Your task to perform on an android device: all mails in gmail Image 0: 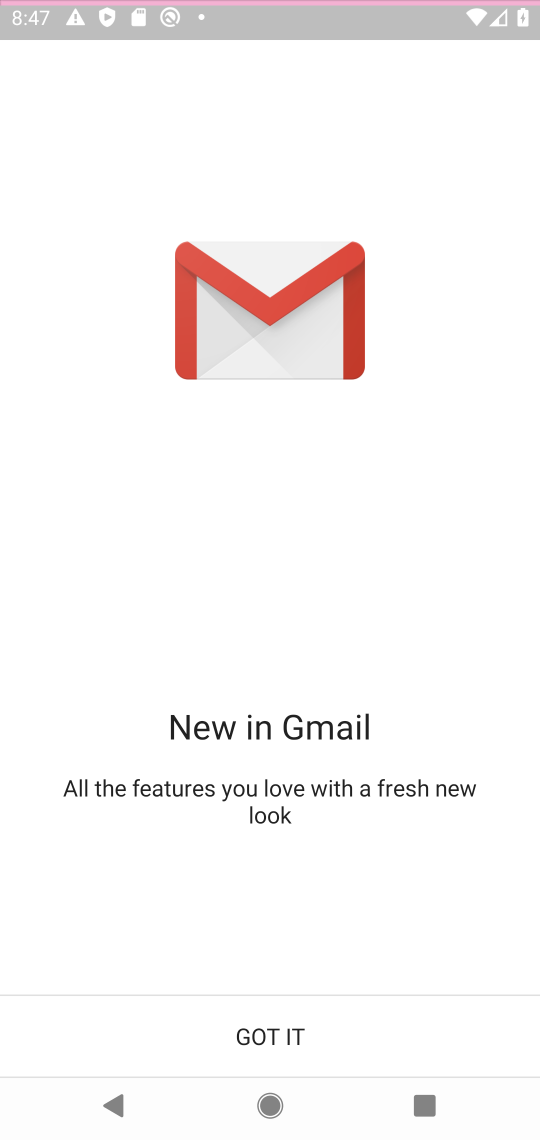
Step 0: press home button
Your task to perform on an android device: all mails in gmail Image 1: 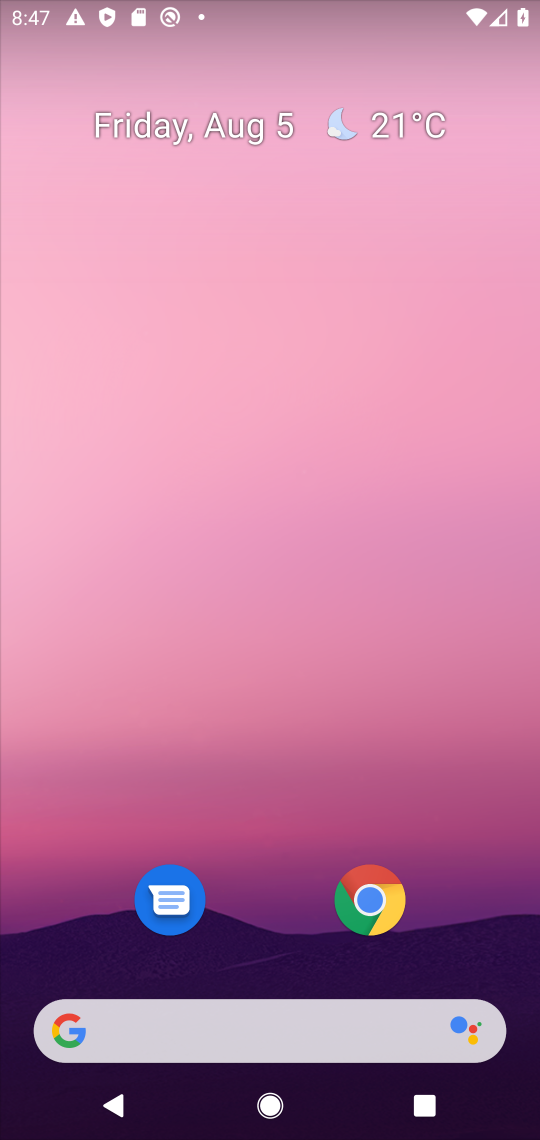
Step 1: drag from (271, 874) to (328, 0)
Your task to perform on an android device: all mails in gmail Image 2: 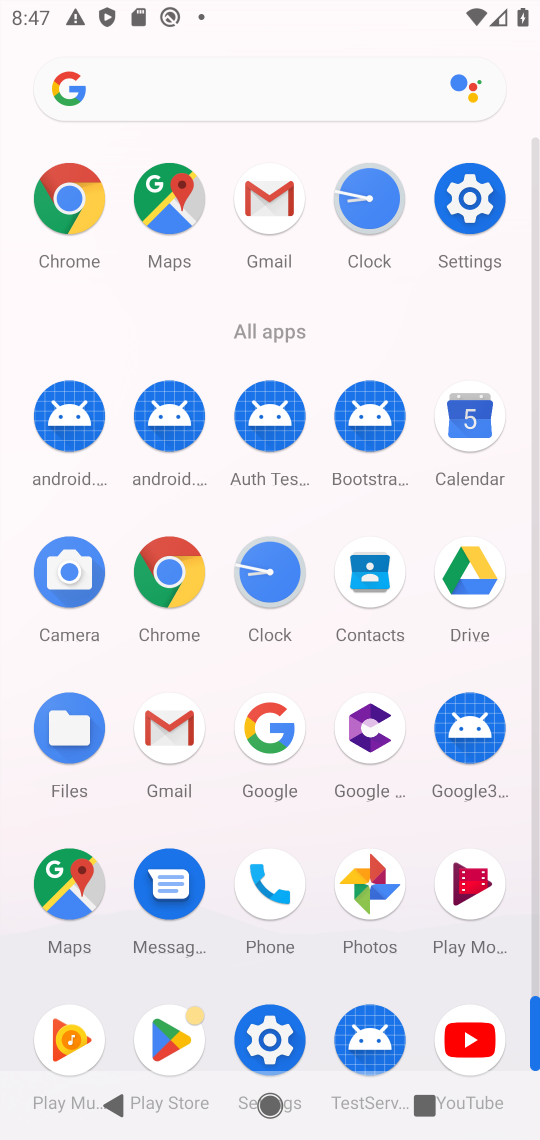
Step 2: click (189, 766)
Your task to perform on an android device: all mails in gmail Image 3: 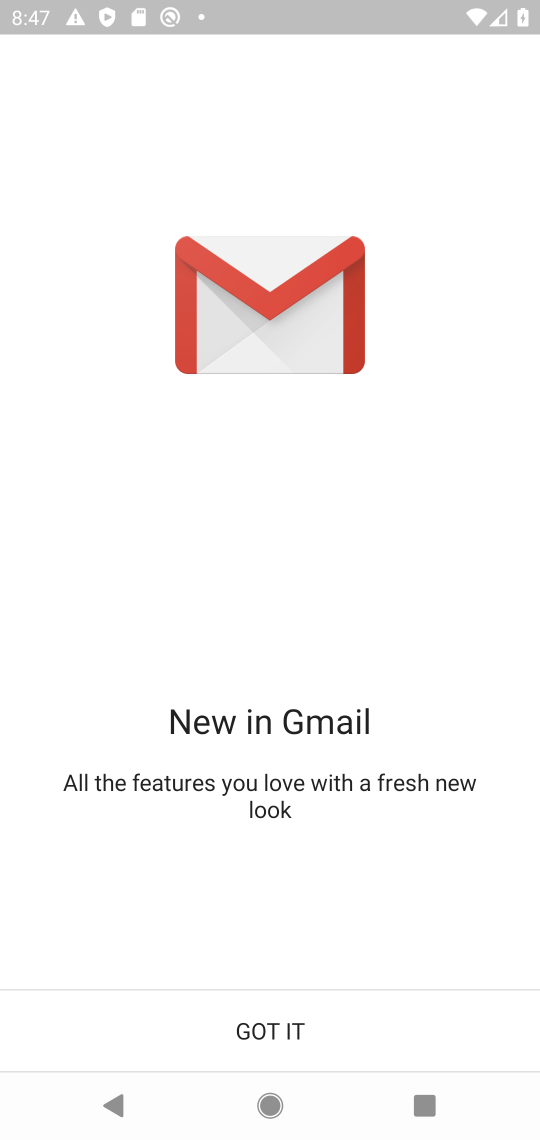
Step 3: click (214, 1029)
Your task to perform on an android device: all mails in gmail Image 4: 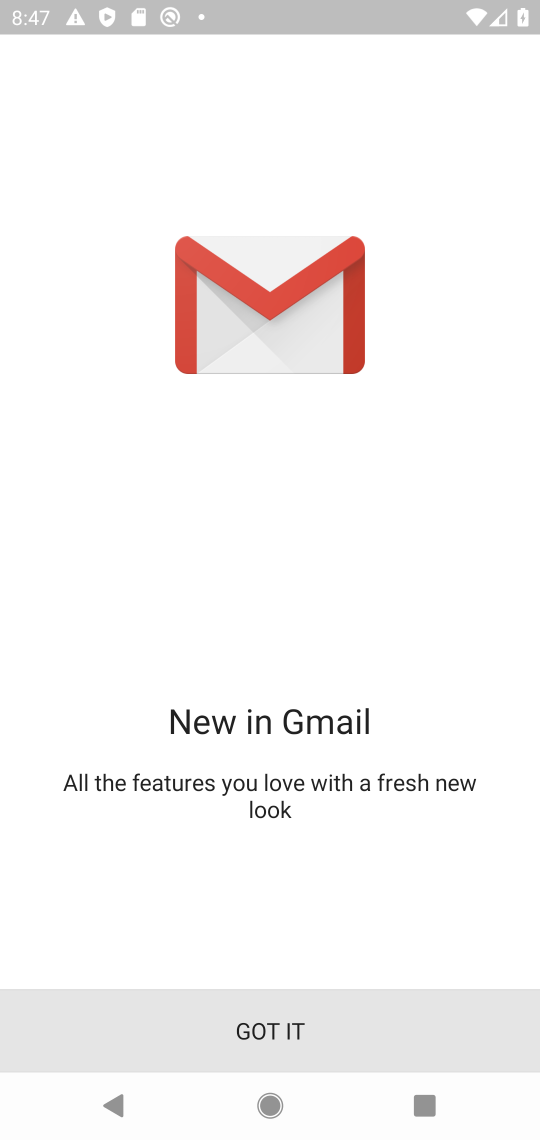
Step 4: click (214, 1029)
Your task to perform on an android device: all mails in gmail Image 5: 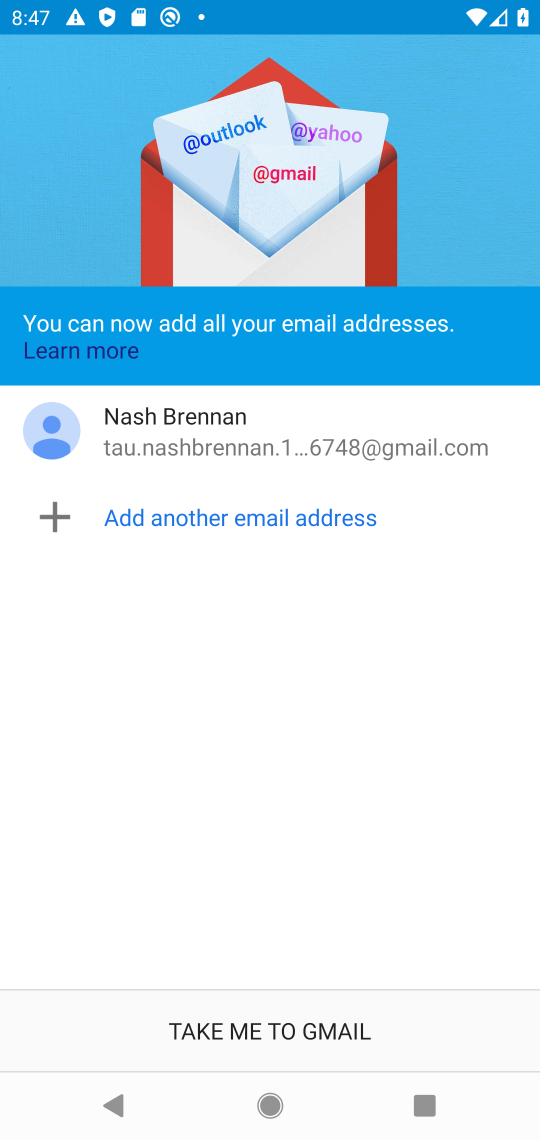
Step 5: click (205, 1038)
Your task to perform on an android device: all mails in gmail Image 6: 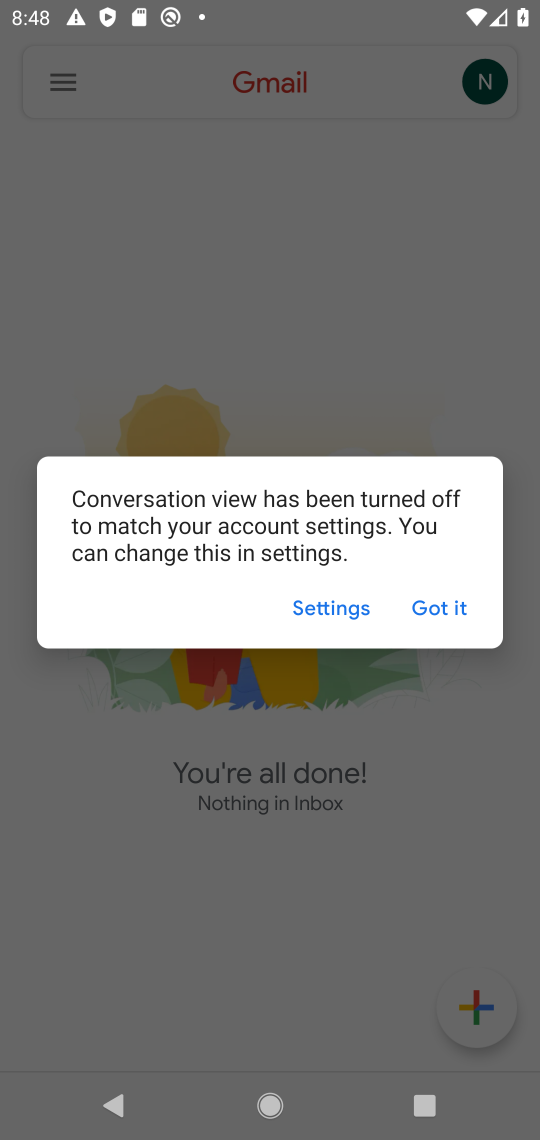
Step 6: click (420, 620)
Your task to perform on an android device: all mails in gmail Image 7: 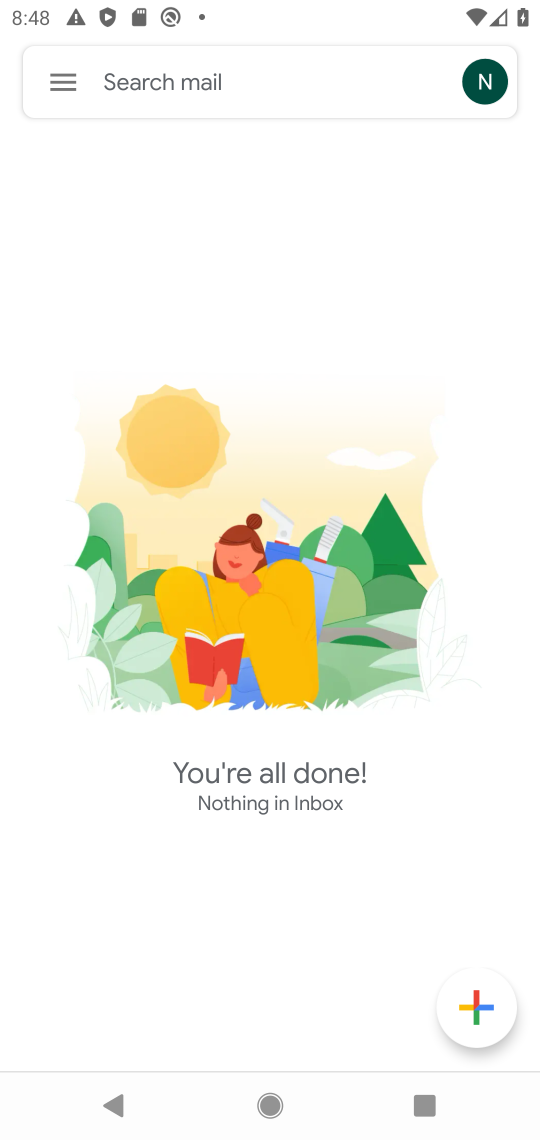
Step 7: click (70, 101)
Your task to perform on an android device: all mails in gmail Image 8: 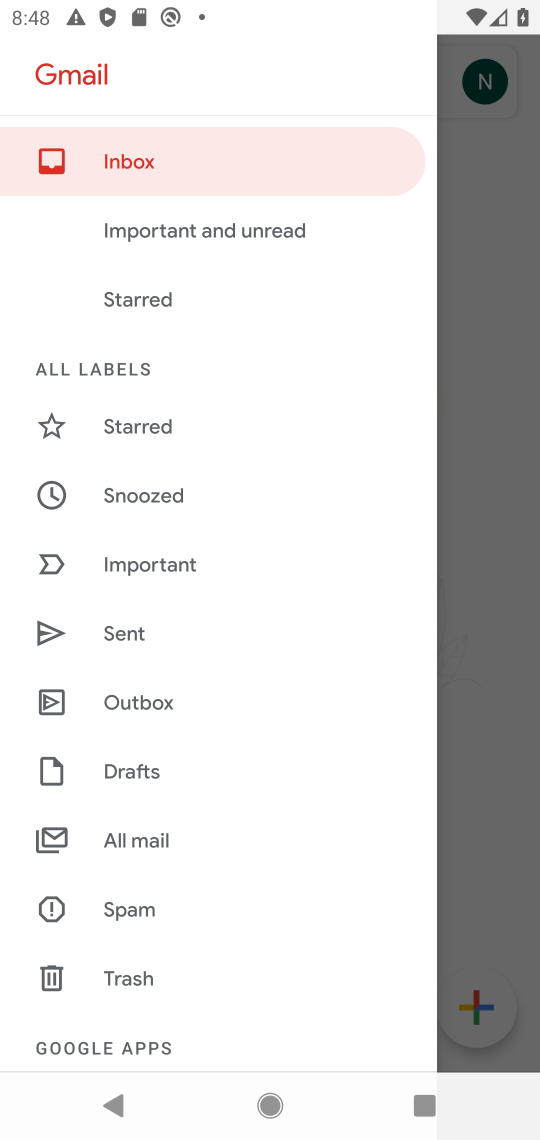
Step 8: click (121, 852)
Your task to perform on an android device: all mails in gmail Image 9: 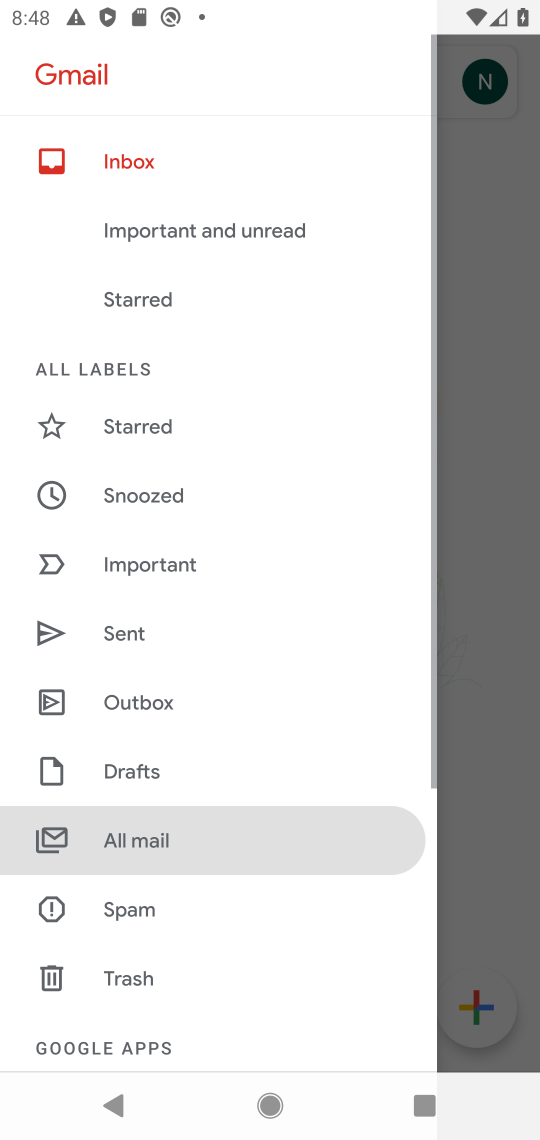
Step 9: task complete